Your task to perform on an android device: uninstall "Google Chrome" Image 0: 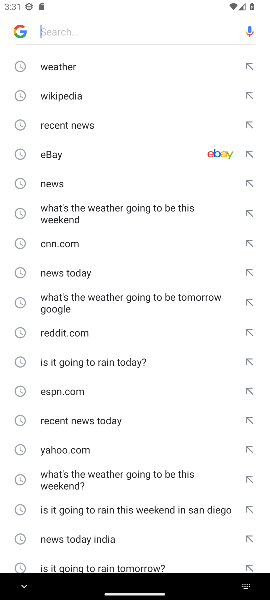
Step 0: press home button
Your task to perform on an android device: uninstall "Google Chrome" Image 1: 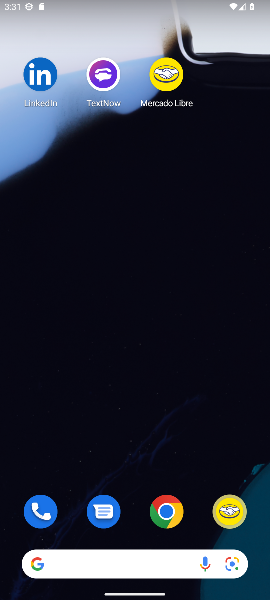
Step 1: click (172, 513)
Your task to perform on an android device: uninstall "Google Chrome" Image 2: 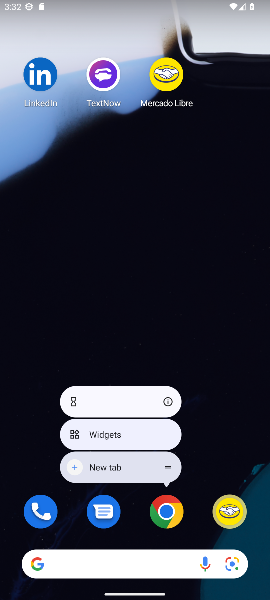
Step 2: task complete